Your task to perform on an android device: Do I have any events this weekend? Image 0: 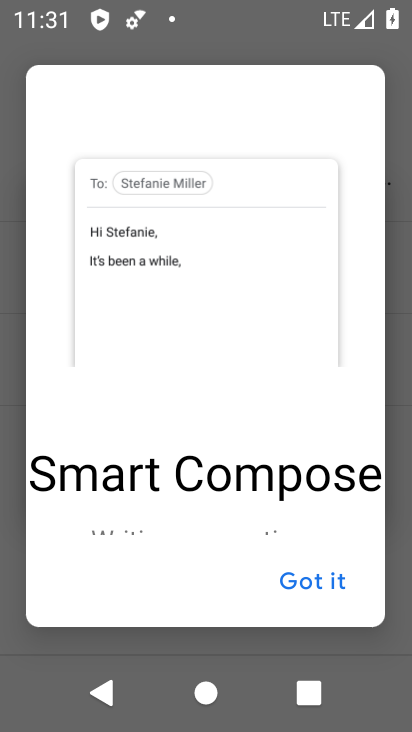
Step 0: press back button
Your task to perform on an android device: Do I have any events this weekend? Image 1: 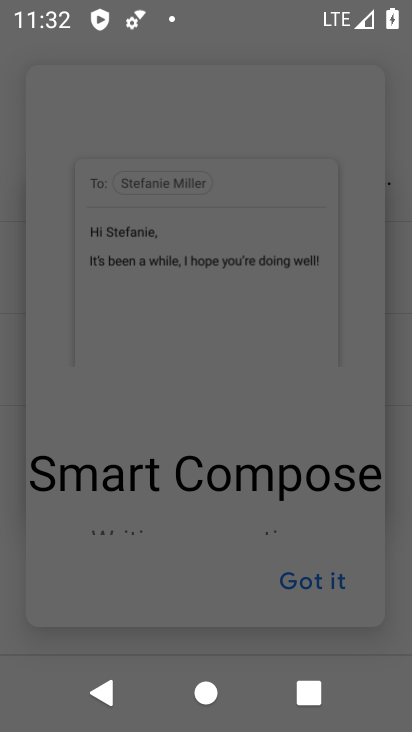
Step 1: press back button
Your task to perform on an android device: Do I have any events this weekend? Image 2: 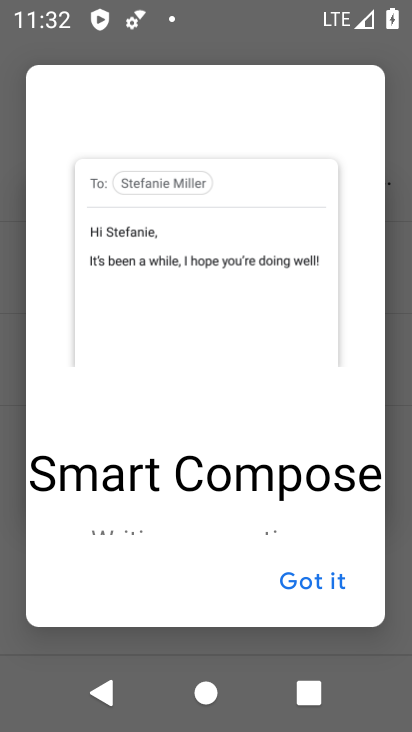
Step 2: press back button
Your task to perform on an android device: Do I have any events this weekend? Image 3: 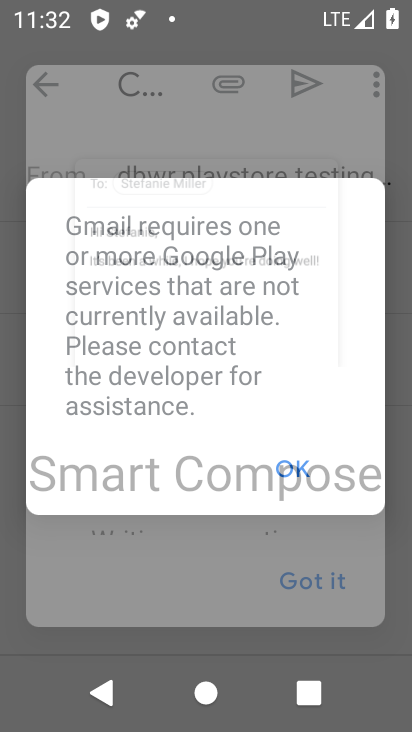
Step 3: press back button
Your task to perform on an android device: Do I have any events this weekend? Image 4: 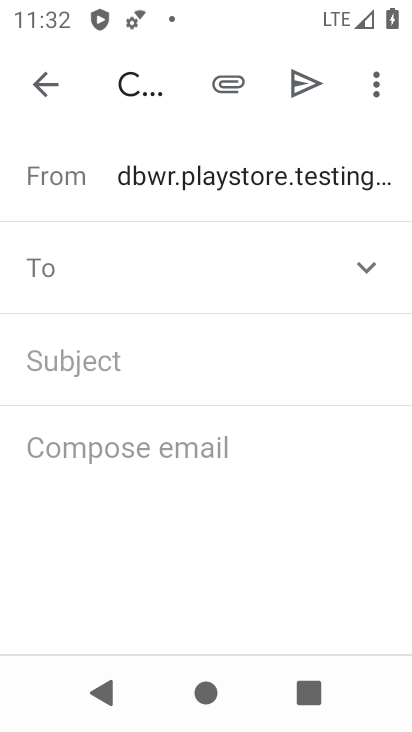
Step 4: press home button
Your task to perform on an android device: Do I have any events this weekend? Image 5: 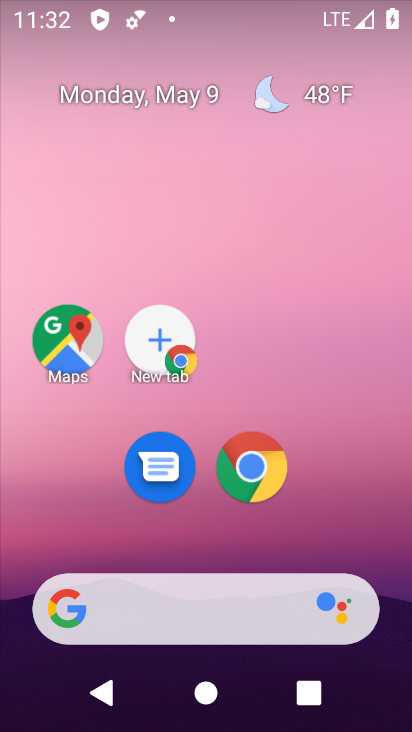
Step 5: drag from (318, 526) to (73, 1)
Your task to perform on an android device: Do I have any events this weekend? Image 6: 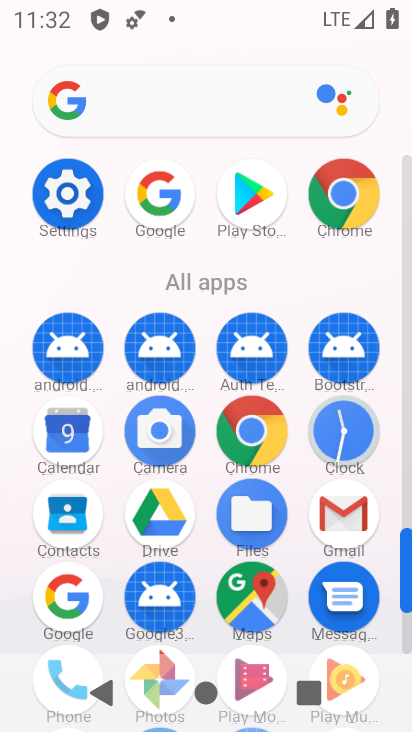
Step 6: click (63, 445)
Your task to perform on an android device: Do I have any events this weekend? Image 7: 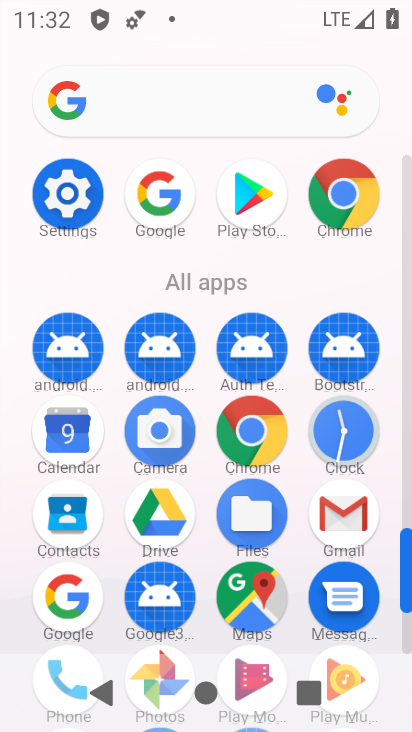
Step 7: click (63, 445)
Your task to perform on an android device: Do I have any events this weekend? Image 8: 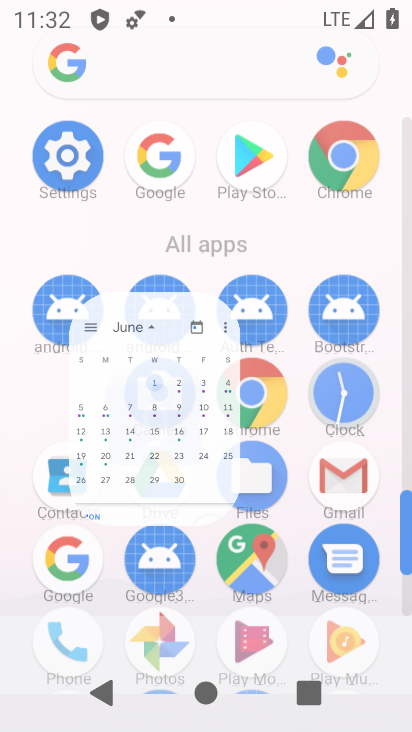
Step 8: click (65, 446)
Your task to perform on an android device: Do I have any events this weekend? Image 9: 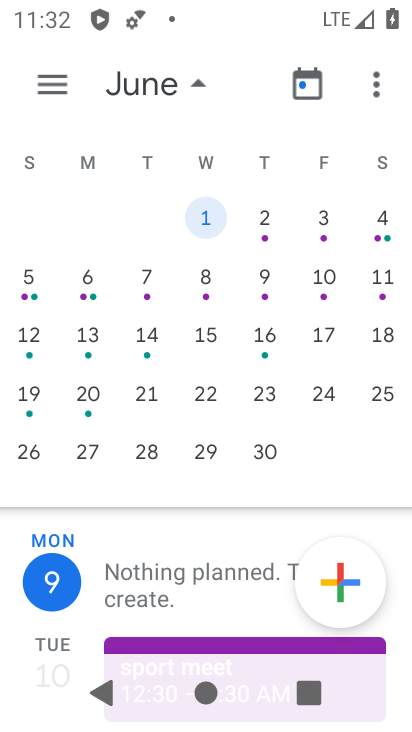
Step 9: click (69, 420)
Your task to perform on an android device: Do I have any events this weekend? Image 10: 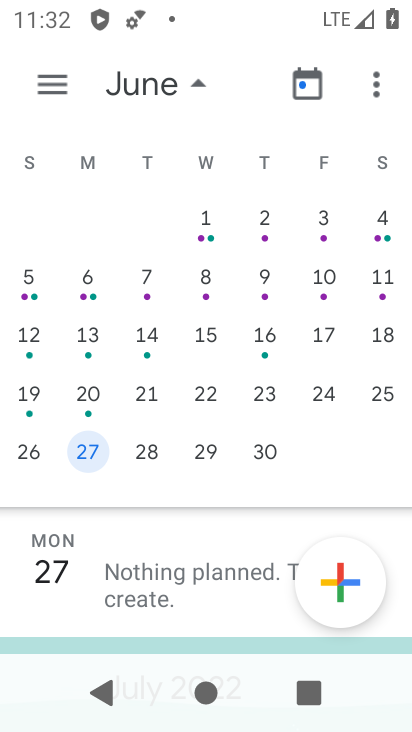
Step 10: drag from (50, 323) to (381, 339)
Your task to perform on an android device: Do I have any events this weekend? Image 11: 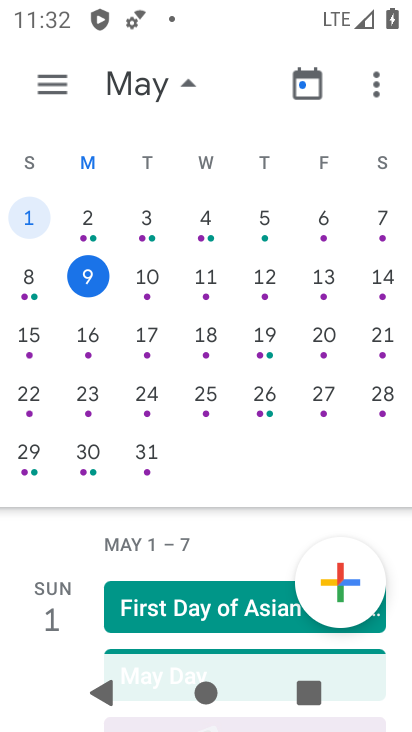
Step 11: click (76, 346)
Your task to perform on an android device: Do I have any events this weekend? Image 12: 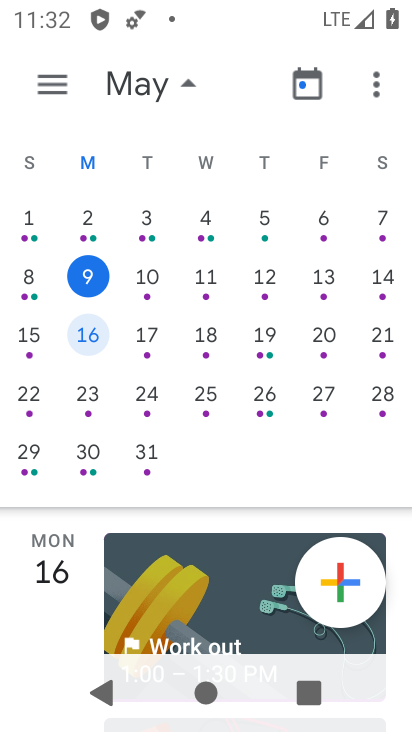
Step 12: click (328, 274)
Your task to perform on an android device: Do I have any events this weekend? Image 13: 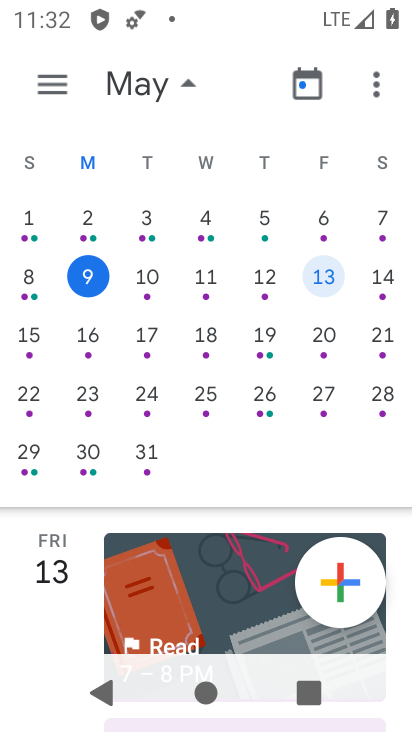
Step 13: click (328, 278)
Your task to perform on an android device: Do I have any events this weekend? Image 14: 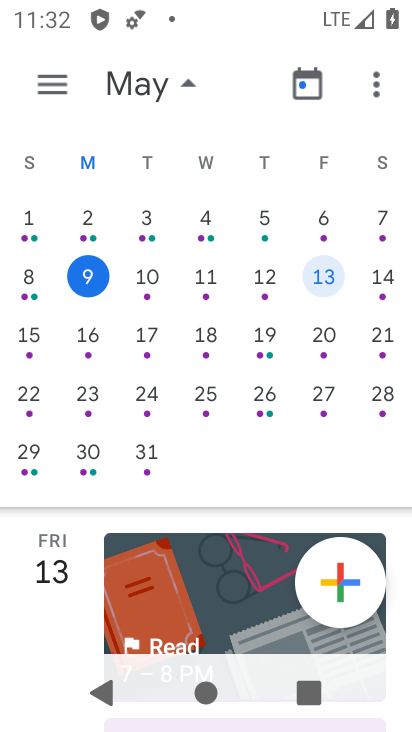
Step 14: click (328, 278)
Your task to perform on an android device: Do I have any events this weekend? Image 15: 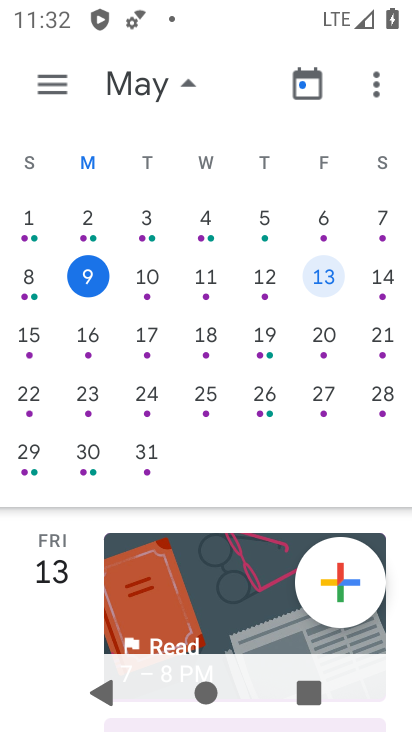
Step 15: click (328, 278)
Your task to perform on an android device: Do I have any events this weekend? Image 16: 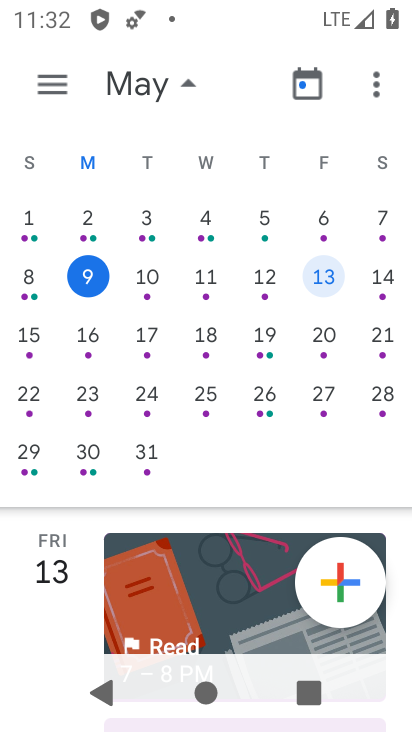
Step 16: click (328, 278)
Your task to perform on an android device: Do I have any events this weekend? Image 17: 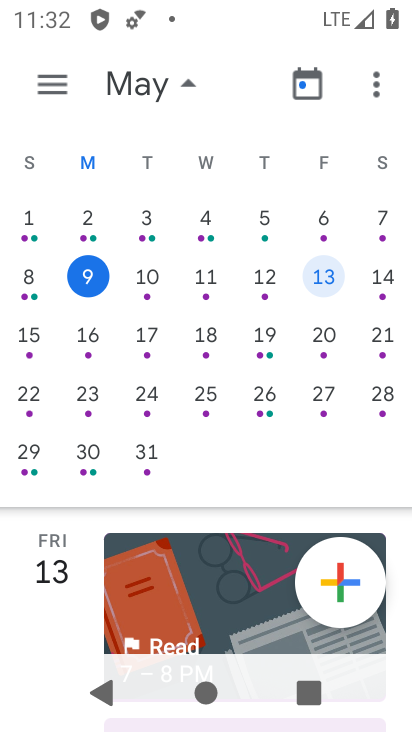
Step 17: click (304, 288)
Your task to perform on an android device: Do I have any events this weekend? Image 18: 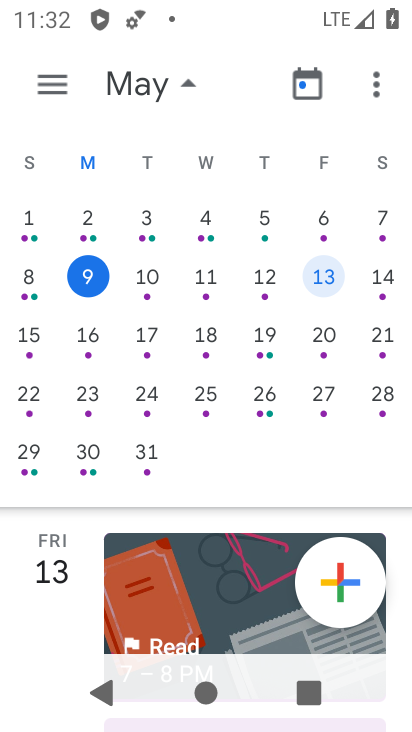
Step 18: click (304, 288)
Your task to perform on an android device: Do I have any events this weekend? Image 19: 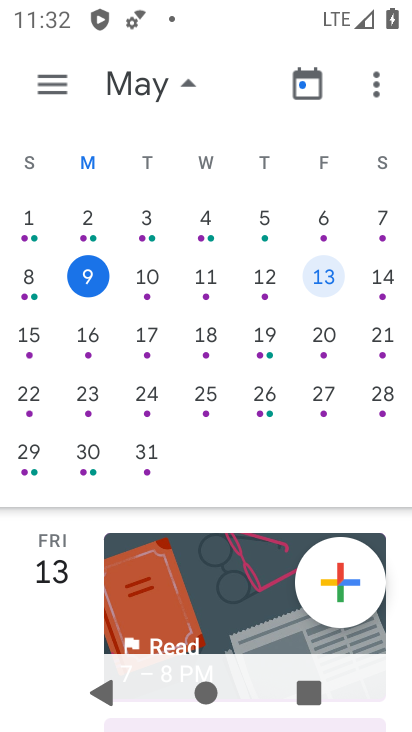
Step 19: drag from (199, 531) to (183, 157)
Your task to perform on an android device: Do I have any events this weekend? Image 20: 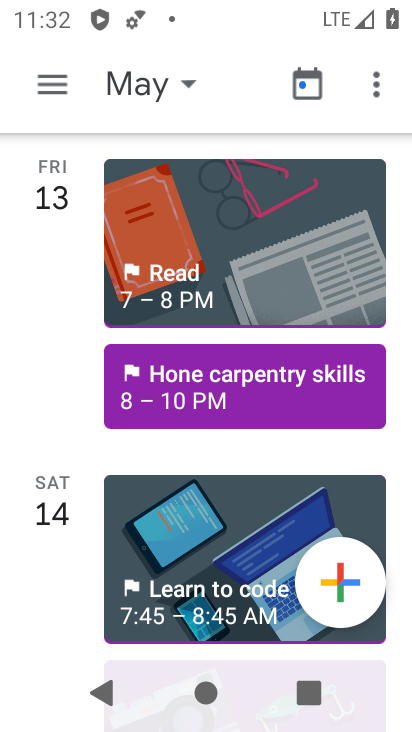
Step 20: drag from (209, 497) to (181, 221)
Your task to perform on an android device: Do I have any events this weekend? Image 21: 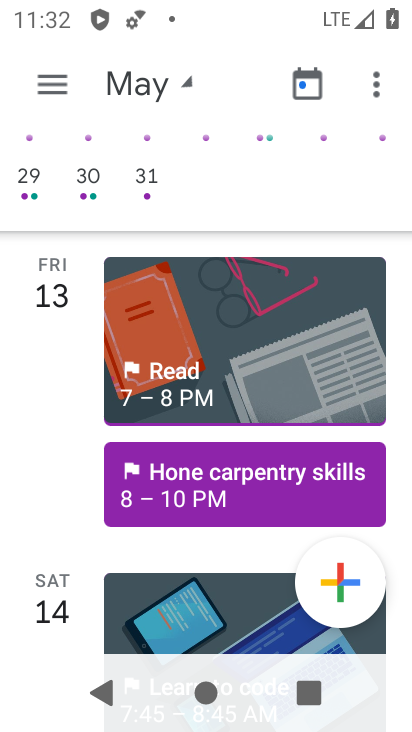
Step 21: drag from (185, 577) to (189, 154)
Your task to perform on an android device: Do I have any events this weekend? Image 22: 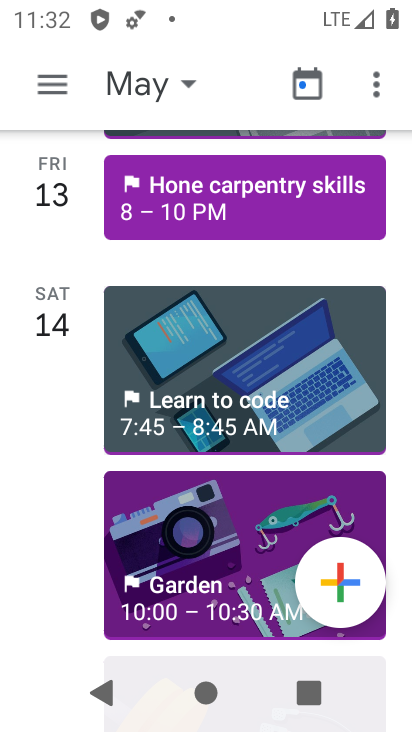
Step 22: drag from (182, 447) to (175, 176)
Your task to perform on an android device: Do I have any events this weekend? Image 23: 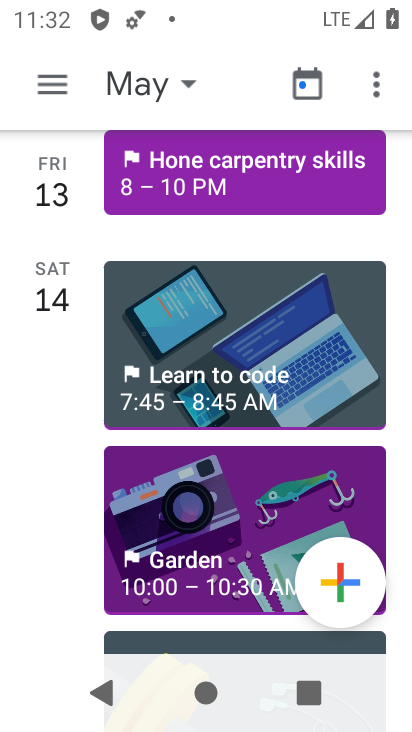
Step 23: drag from (177, 479) to (183, 207)
Your task to perform on an android device: Do I have any events this weekend? Image 24: 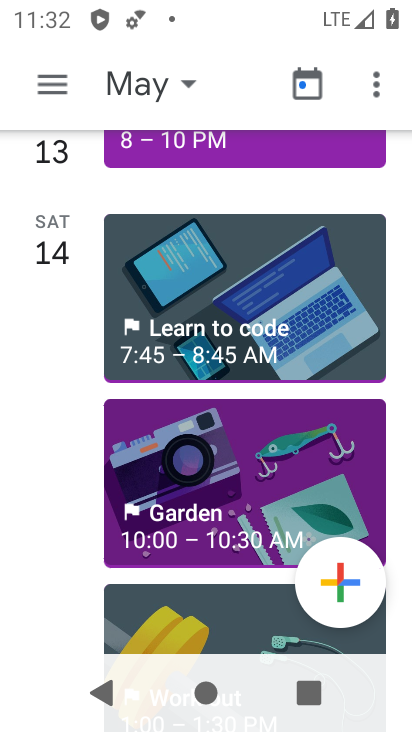
Step 24: drag from (221, 526) to (177, 143)
Your task to perform on an android device: Do I have any events this weekend? Image 25: 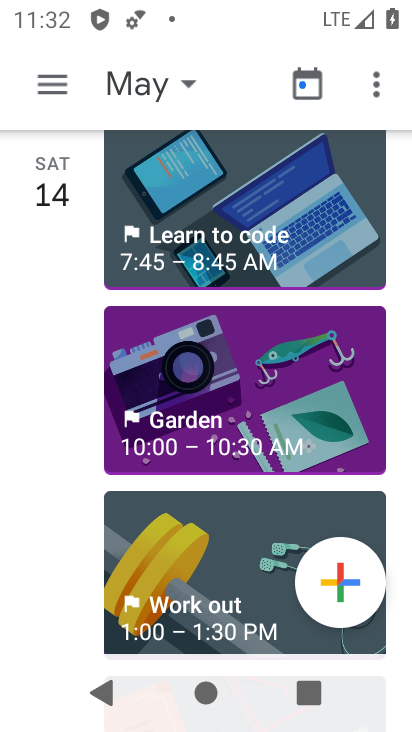
Step 25: drag from (226, 191) to (158, 468)
Your task to perform on an android device: Do I have any events this weekend? Image 26: 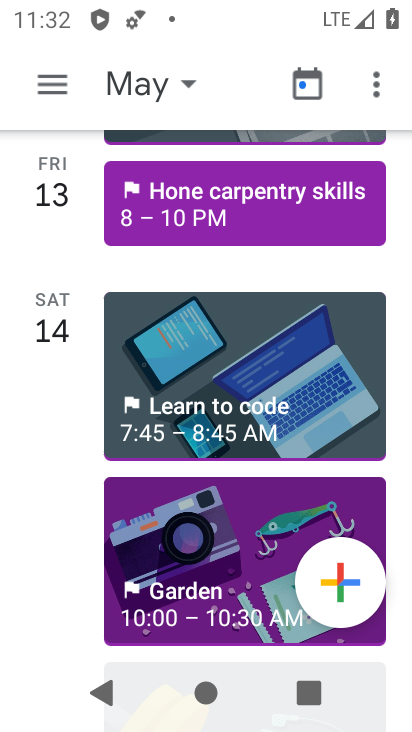
Step 26: drag from (127, 246) to (169, 490)
Your task to perform on an android device: Do I have any events this weekend? Image 27: 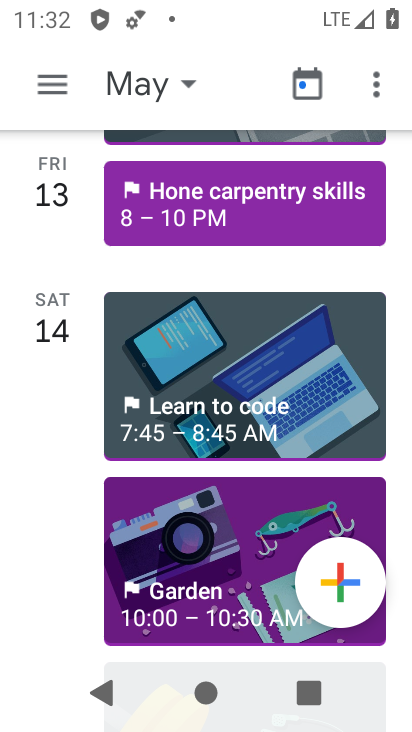
Step 27: drag from (149, 232) to (170, 515)
Your task to perform on an android device: Do I have any events this weekend? Image 28: 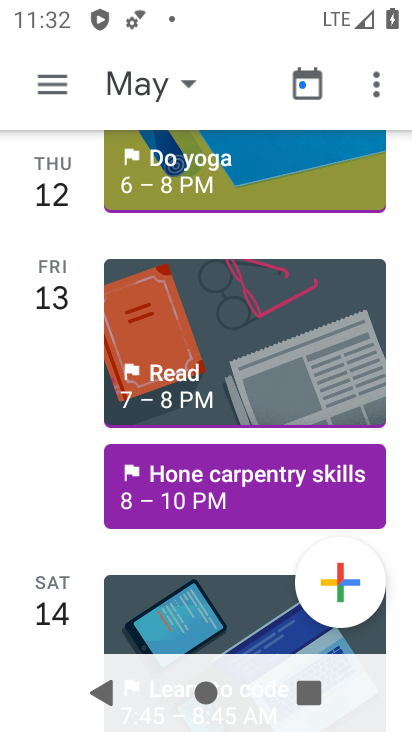
Step 28: click (181, 178)
Your task to perform on an android device: Do I have any events this weekend? Image 29: 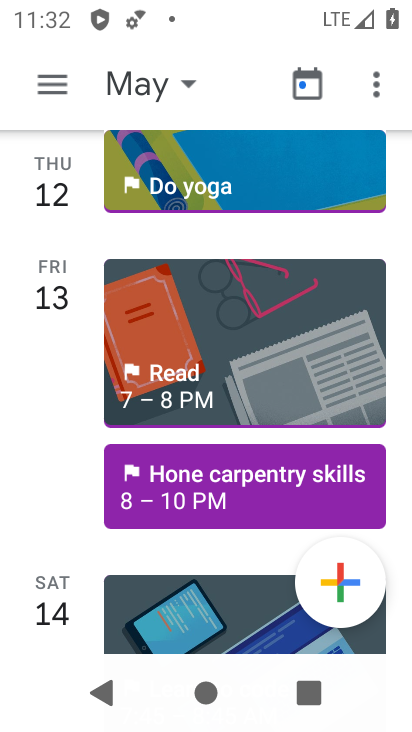
Step 29: click (153, 367)
Your task to perform on an android device: Do I have any events this weekend? Image 30: 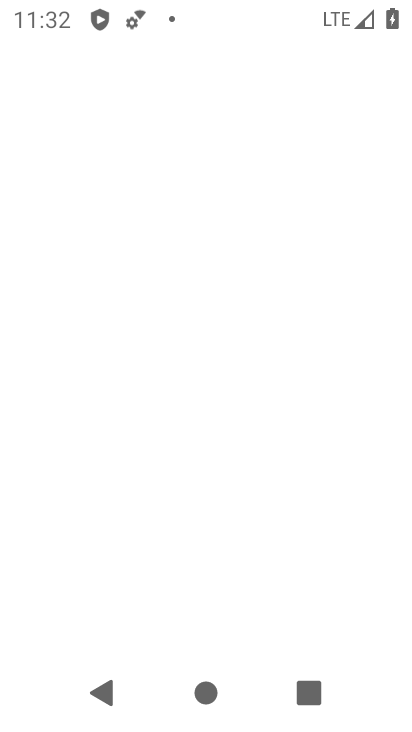
Step 30: click (153, 360)
Your task to perform on an android device: Do I have any events this weekend? Image 31: 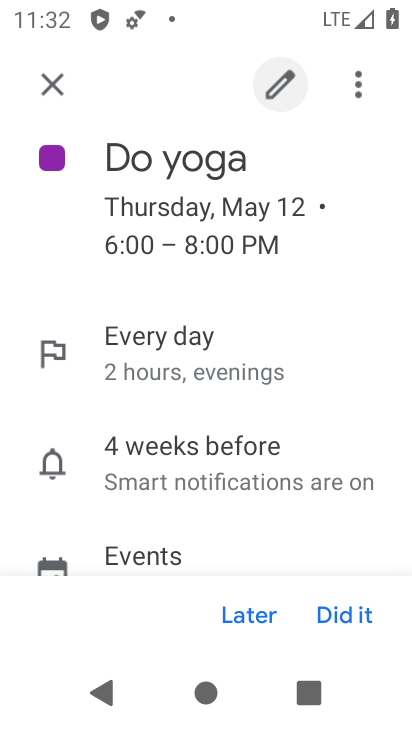
Step 31: click (154, 359)
Your task to perform on an android device: Do I have any events this weekend? Image 32: 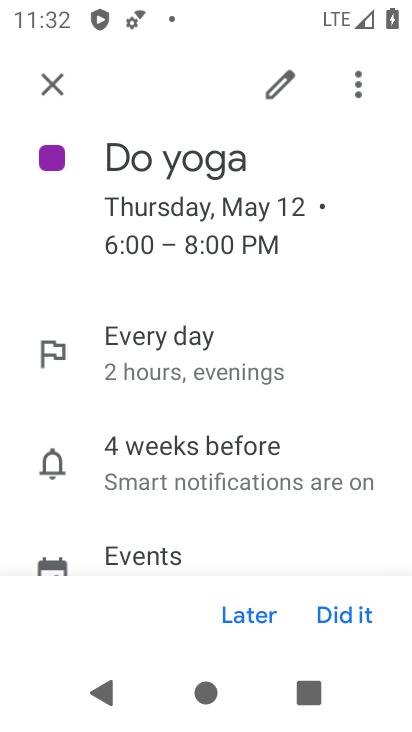
Step 32: task complete